Your task to perform on an android device: open the mobile data screen to see how much data has been used Image 0: 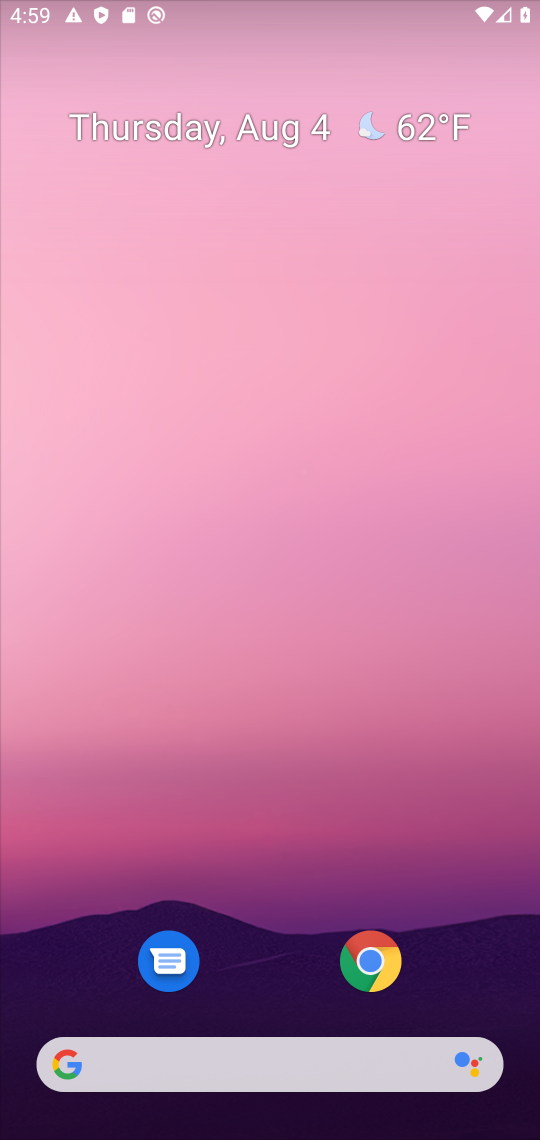
Step 0: click (294, 146)
Your task to perform on an android device: open the mobile data screen to see how much data has been used Image 1: 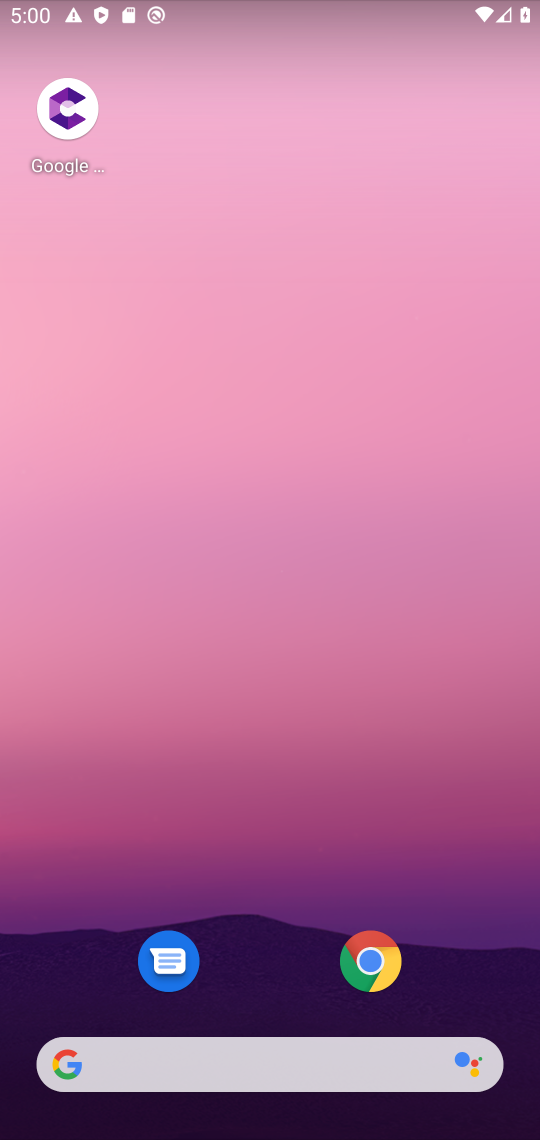
Step 1: drag from (397, 9) to (386, 878)
Your task to perform on an android device: open the mobile data screen to see how much data has been used Image 2: 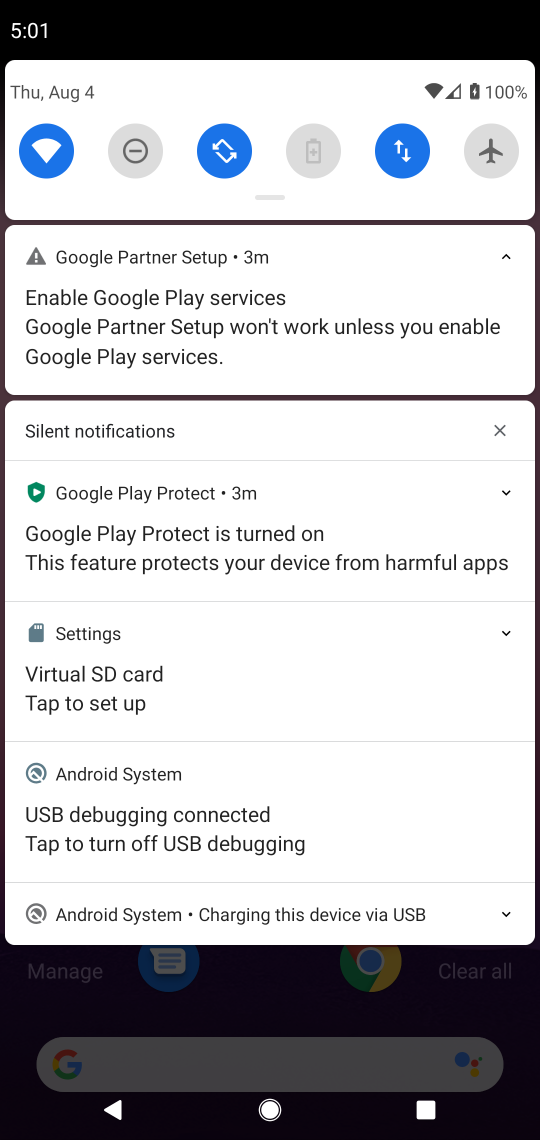
Step 2: click (409, 172)
Your task to perform on an android device: open the mobile data screen to see how much data has been used Image 3: 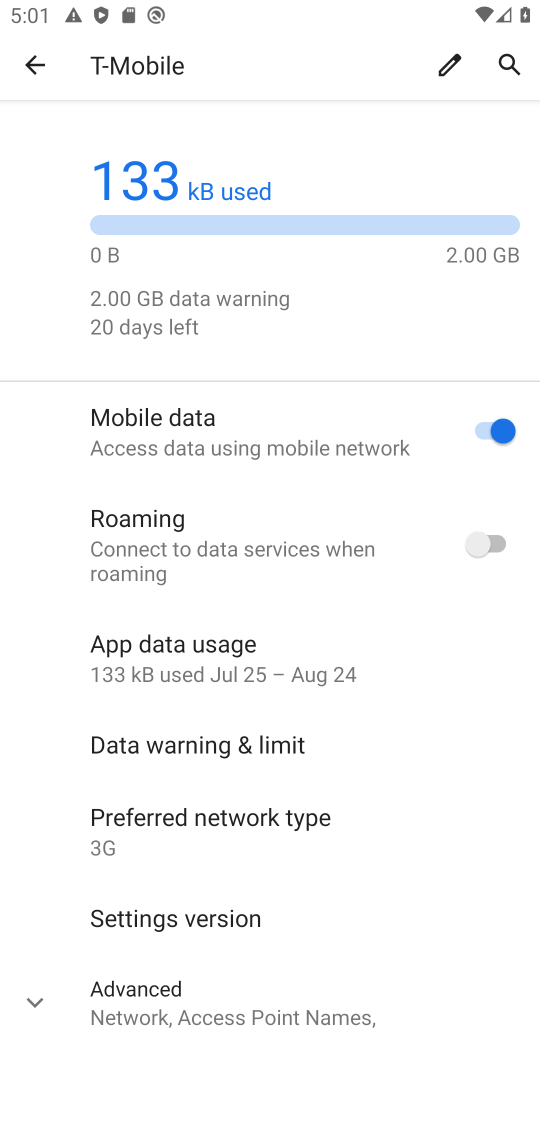
Step 3: task complete